Your task to perform on an android device: Open calendar and show me the second week of next month Image 0: 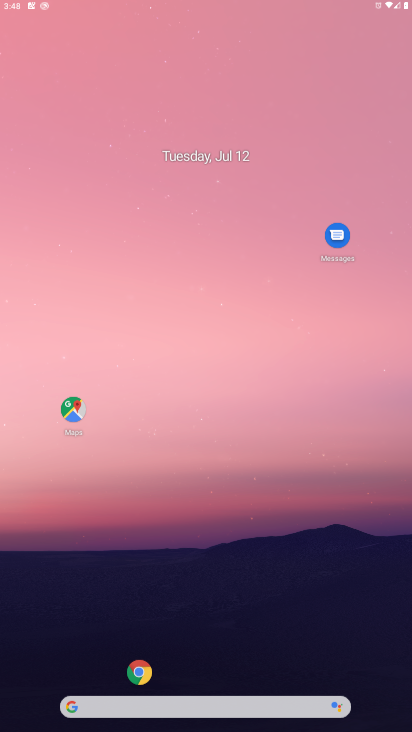
Step 0: drag from (373, 19) to (359, 625)
Your task to perform on an android device: Open calendar and show me the second week of next month Image 1: 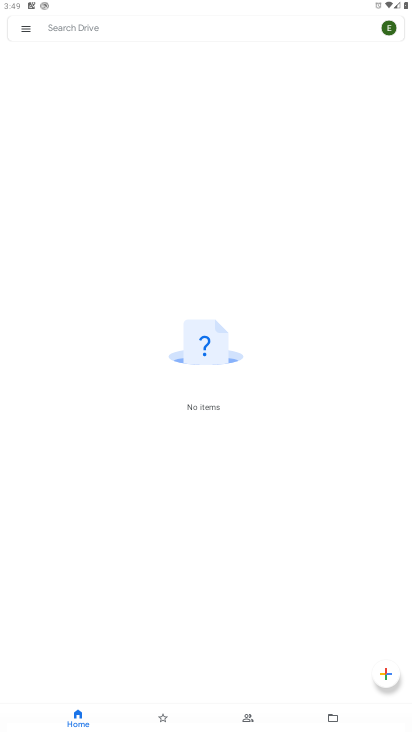
Step 1: press home button
Your task to perform on an android device: Open calendar and show me the second week of next month Image 2: 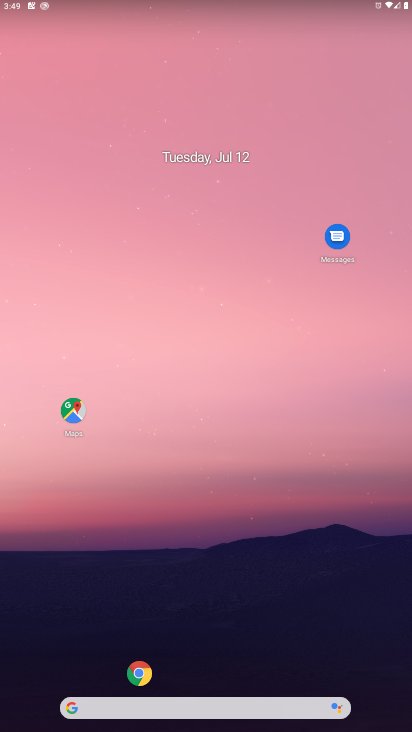
Step 2: drag from (151, 450) to (315, 198)
Your task to perform on an android device: Open calendar and show me the second week of next month Image 3: 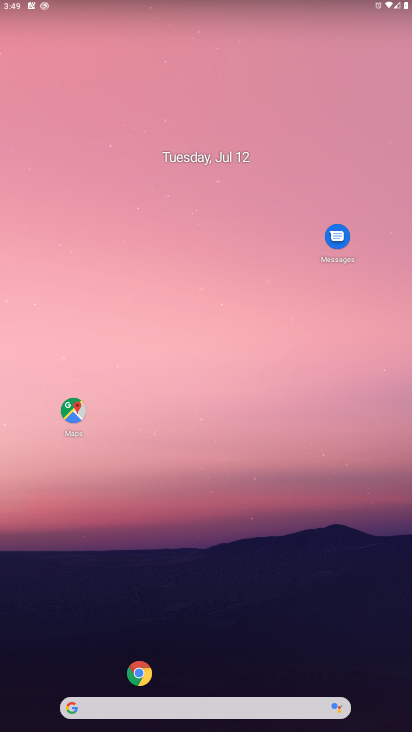
Step 3: drag from (23, 685) to (301, 101)
Your task to perform on an android device: Open calendar and show me the second week of next month Image 4: 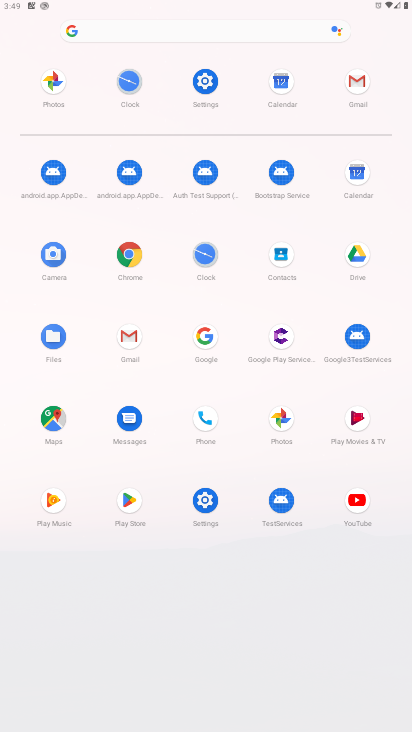
Step 4: click (357, 174)
Your task to perform on an android device: Open calendar and show me the second week of next month Image 5: 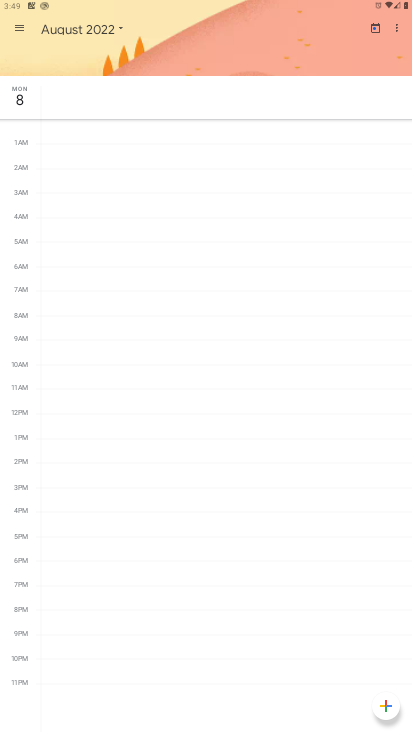
Step 5: click (14, 36)
Your task to perform on an android device: Open calendar and show me the second week of next month Image 6: 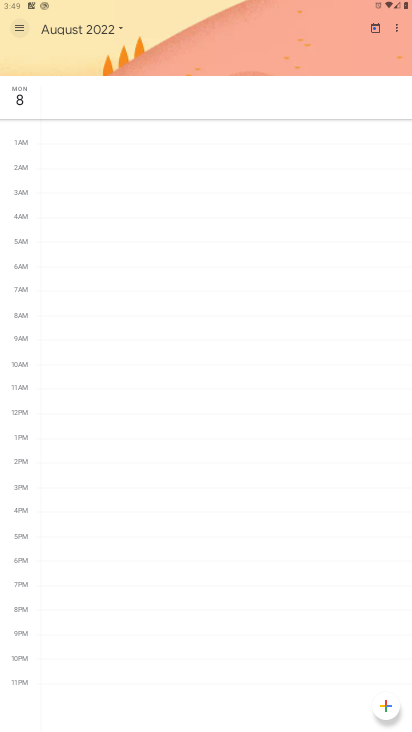
Step 6: click (18, 30)
Your task to perform on an android device: Open calendar and show me the second week of next month Image 7: 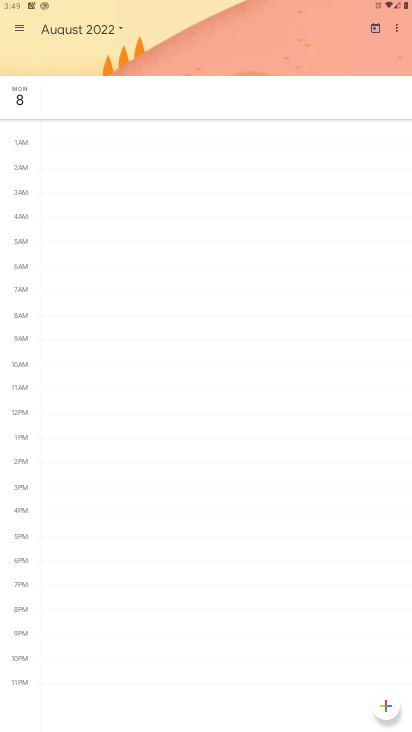
Step 7: click (13, 18)
Your task to perform on an android device: Open calendar and show me the second week of next month Image 8: 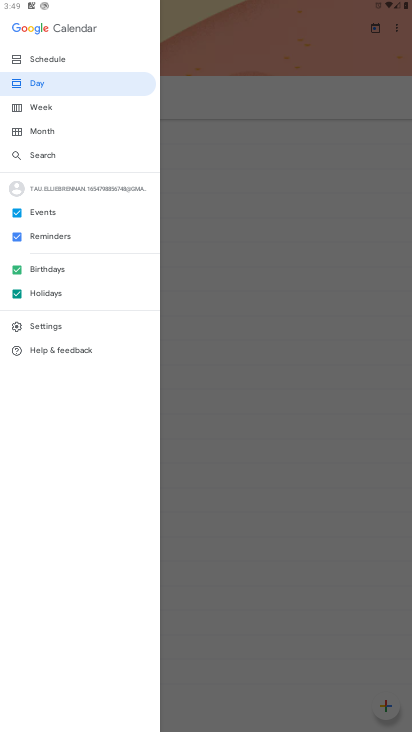
Step 8: click (40, 133)
Your task to perform on an android device: Open calendar and show me the second week of next month Image 9: 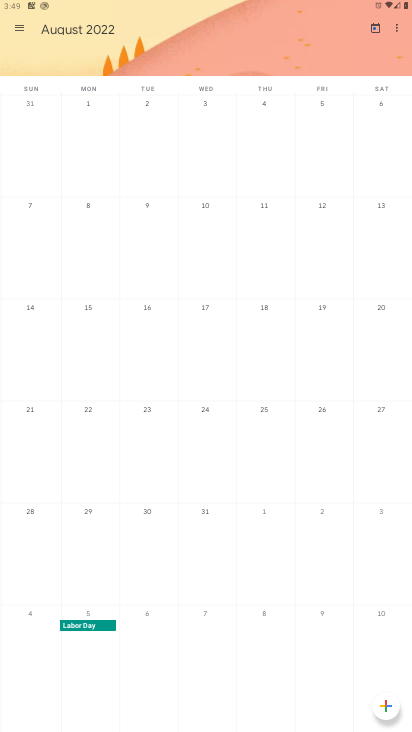
Step 9: click (76, 216)
Your task to perform on an android device: Open calendar and show me the second week of next month Image 10: 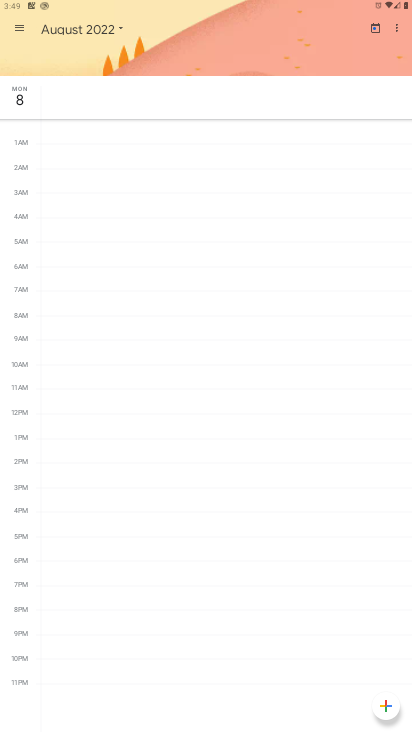
Step 10: task complete